Your task to perform on an android device: Open location settings Image 0: 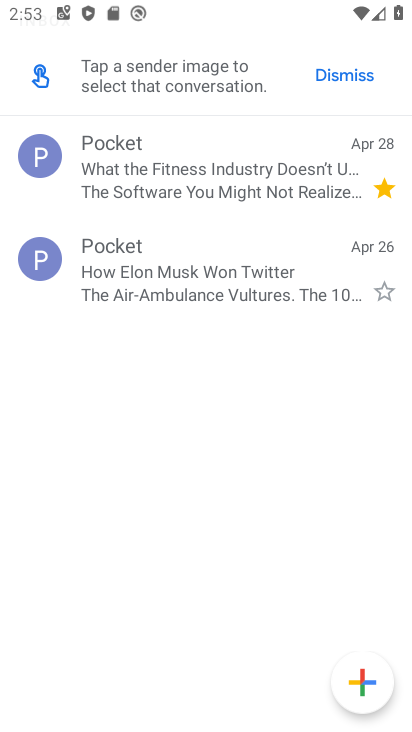
Step 0: press back button
Your task to perform on an android device: Open location settings Image 1: 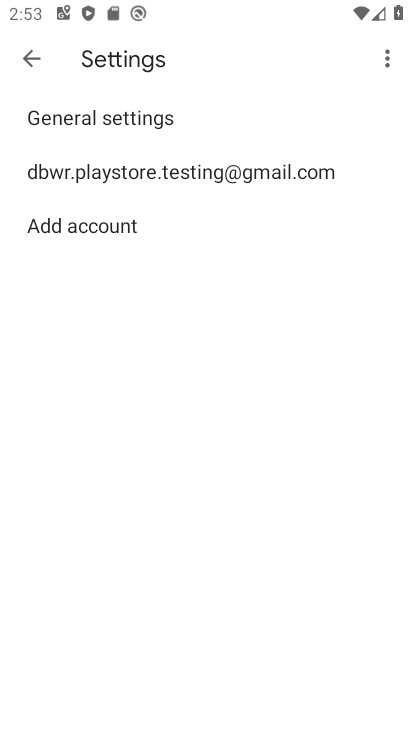
Step 1: press back button
Your task to perform on an android device: Open location settings Image 2: 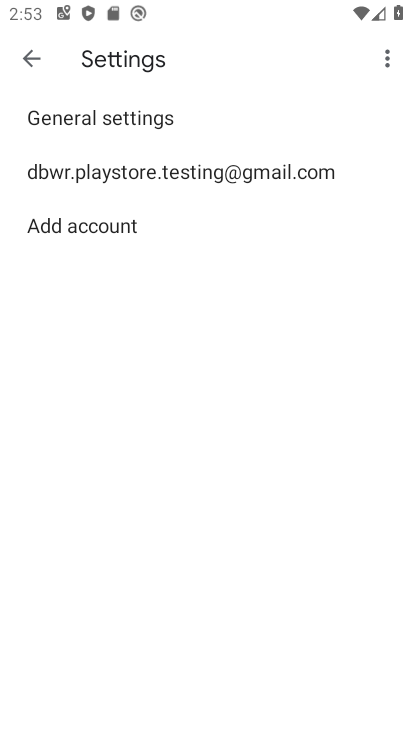
Step 2: press back button
Your task to perform on an android device: Open location settings Image 3: 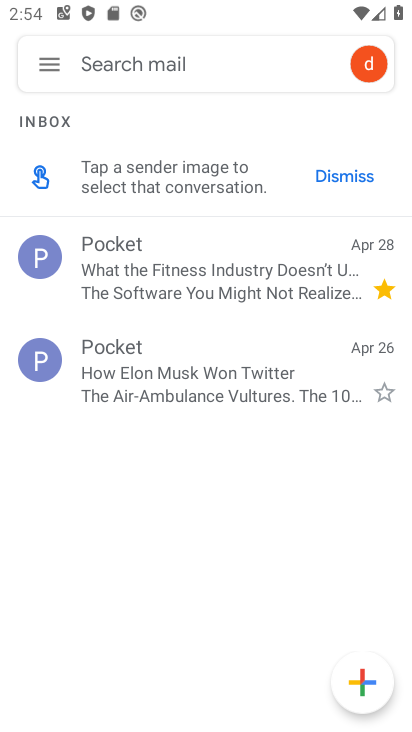
Step 3: press home button
Your task to perform on an android device: Open location settings Image 4: 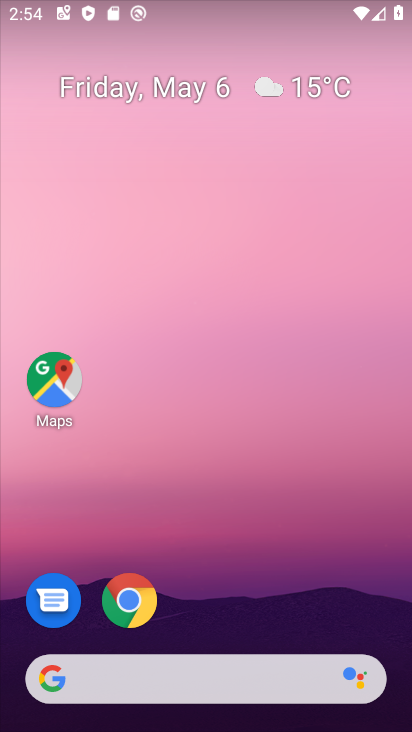
Step 4: drag from (203, 570) to (207, 68)
Your task to perform on an android device: Open location settings Image 5: 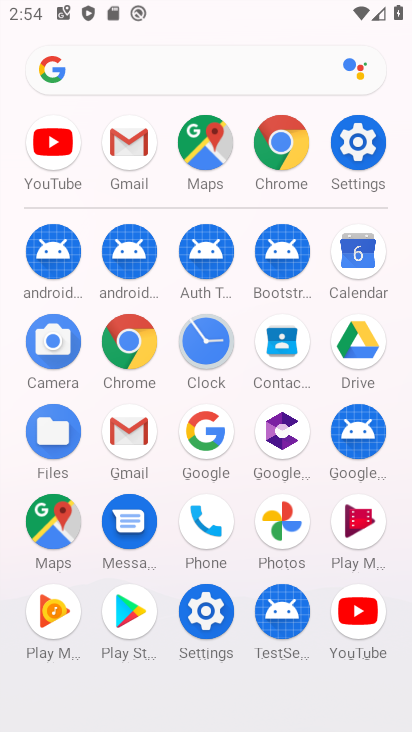
Step 5: click (357, 145)
Your task to perform on an android device: Open location settings Image 6: 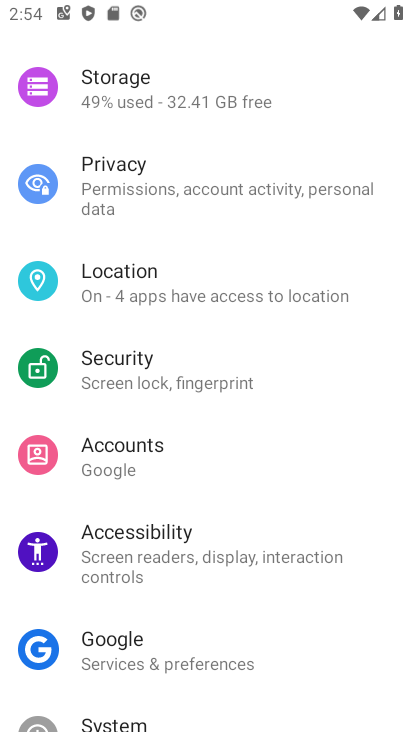
Step 6: click (189, 282)
Your task to perform on an android device: Open location settings Image 7: 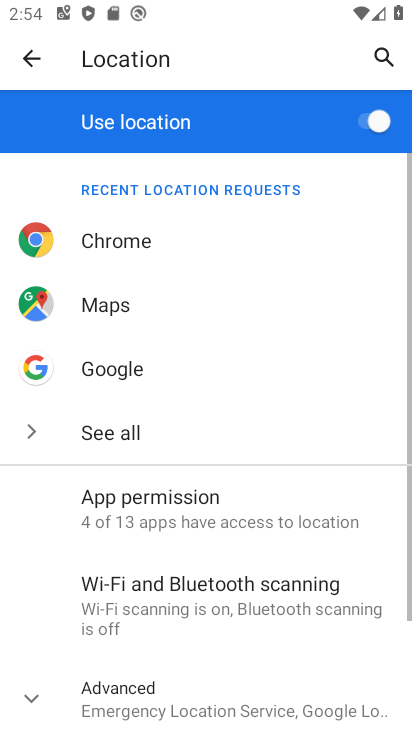
Step 7: drag from (217, 518) to (256, 178)
Your task to perform on an android device: Open location settings Image 8: 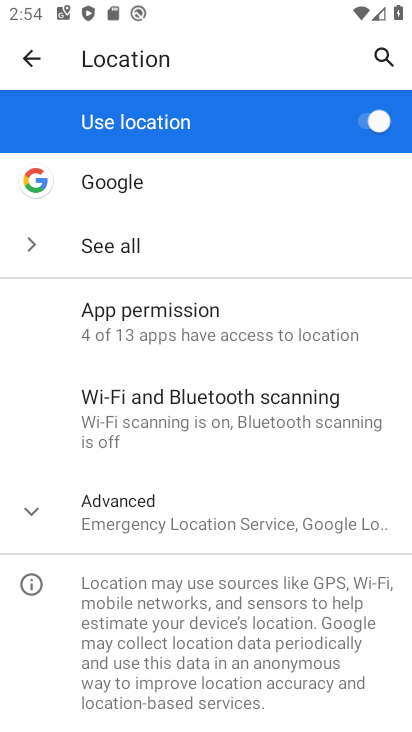
Step 8: click (39, 510)
Your task to perform on an android device: Open location settings Image 9: 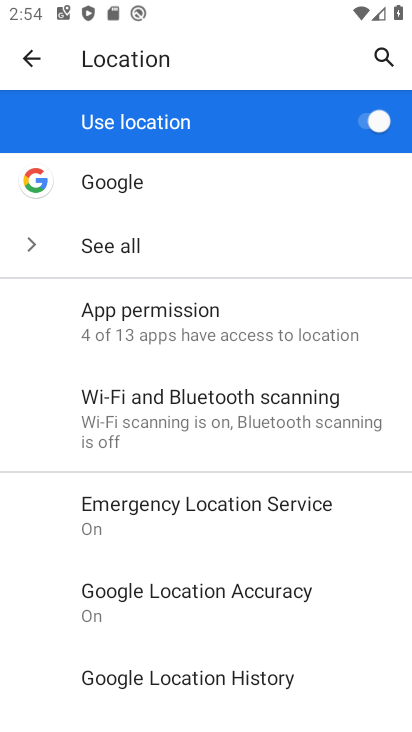
Step 9: task complete